Your task to perform on an android device: Go to Google maps Image 0: 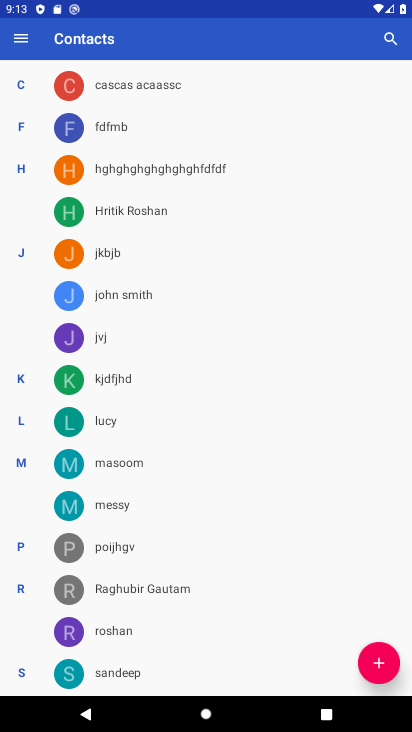
Step 0: press home button
Your task to perform on an android device: Go to Google maps Image 1: 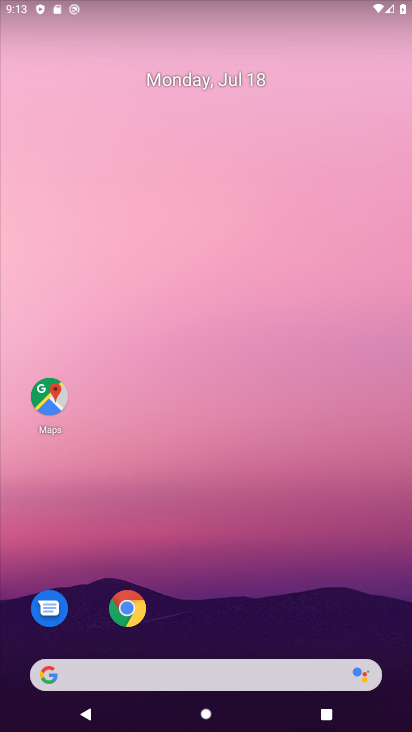
Step 1: drag from (216, 577) to (278, 38)
Your task to perform on an android device: Go to Google maps Image 2: 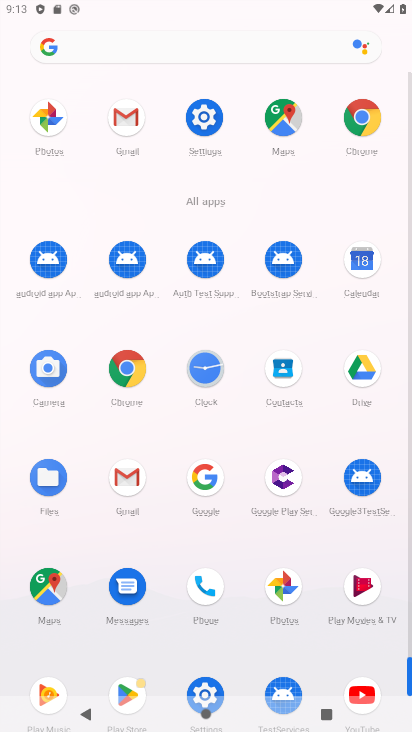
Step 2: click (36, 587)
Your task to perform on an android device: Go to Google maps Image 3: 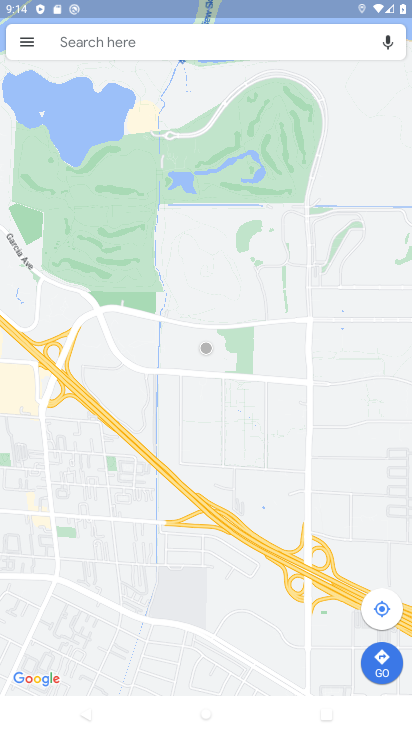
Step 3: task complete